Your task to perform on an android device: Search for the new nike shoes on Target Image 0: 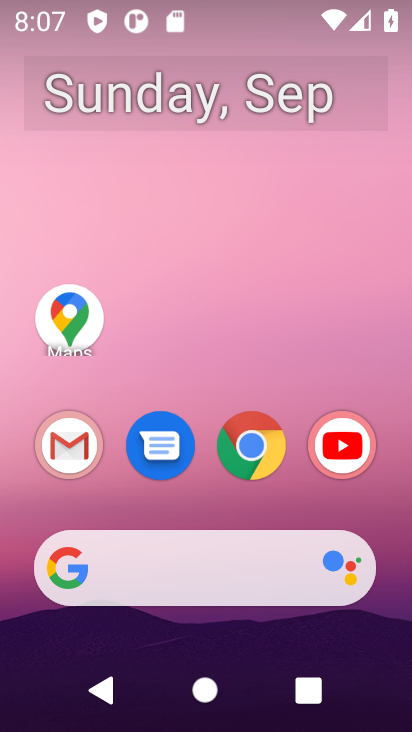
Step 0: drag from (141, 538) to (179, 20)
Your task to perform on an android device: Search for the new nike shoes on Target Image 1: 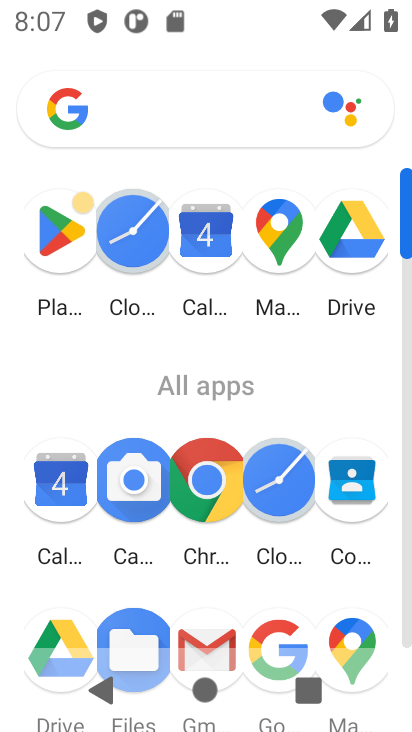
Step 1: click (191, 476)
Your task to perform on an android device: Search for the new nike shoes on Target Image 2: 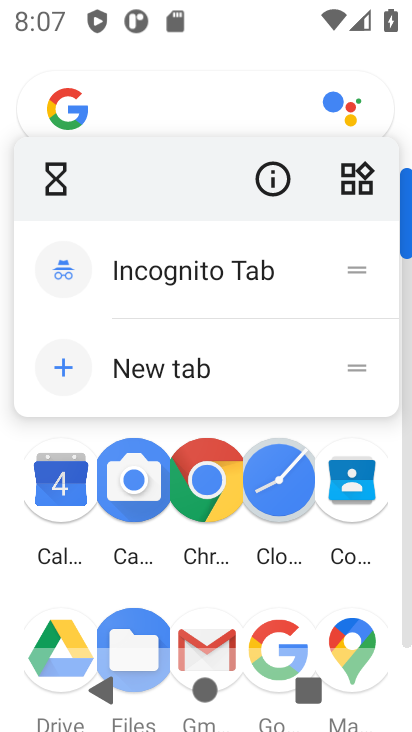
Step 2: click (215, 481)
Your task to perform on an android device: Search for the new nike shoes on Target Image 3: 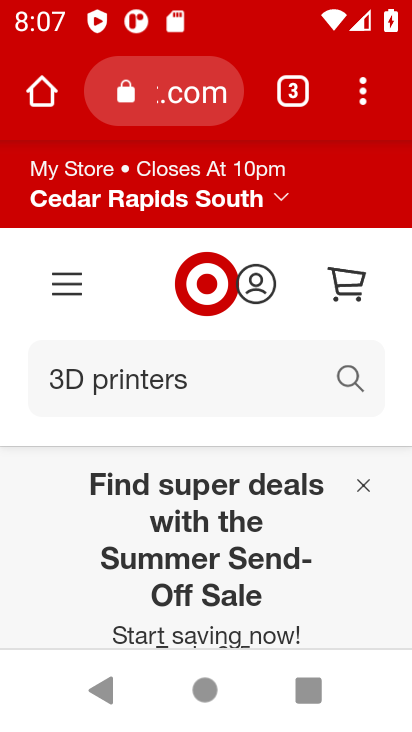
Step 3: click (190, 107)
Your task to perform on an android device: Search for the new nike shoes on Target Image 4: 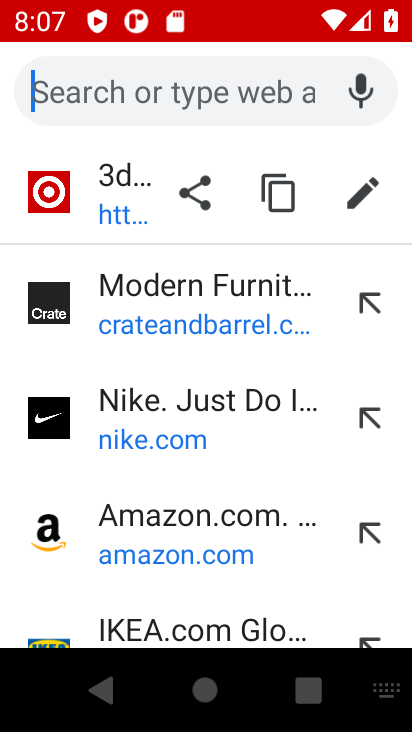
Step 4: press enter
Your task to perform on an android device: Search for the new nike shoes on Target Image 5: 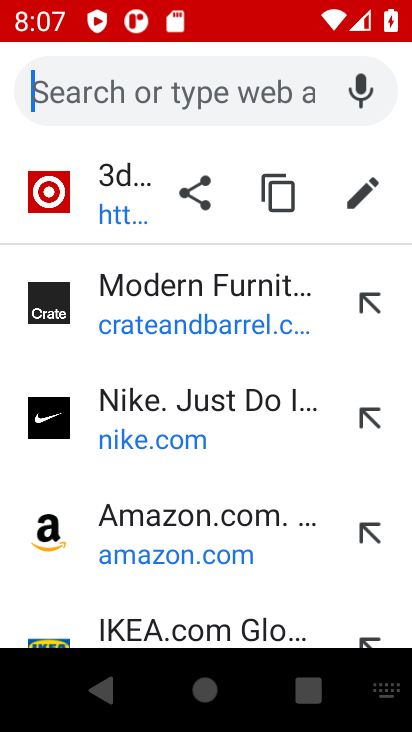
Step 5: type "Target"
Your task to perform on an android device: Search for the new nike shoes on Target Image 6: 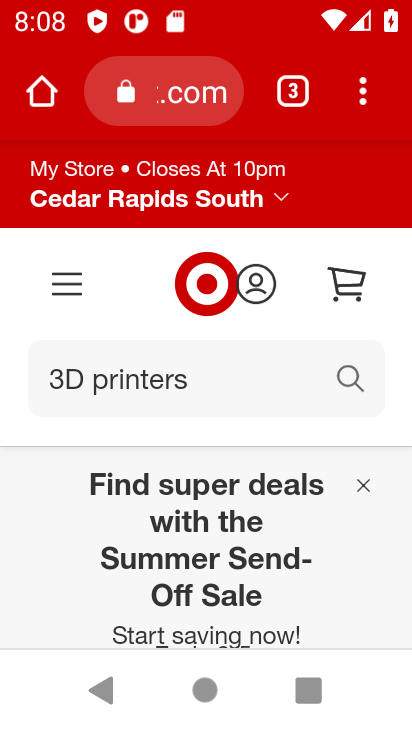
Step 6: click (298, 394)
Your task to perform on an android device: Search for the new nike shoes on Target Image 7: 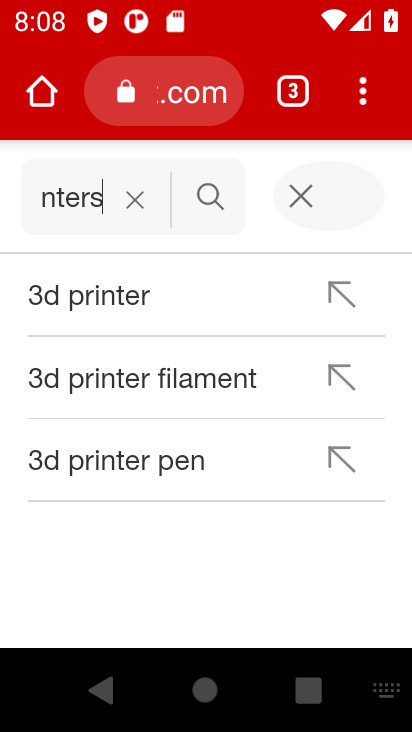
Step 7: click (126, 194)
Your task to perform on an android device: Search for the new nike shoes on Target Image 8: 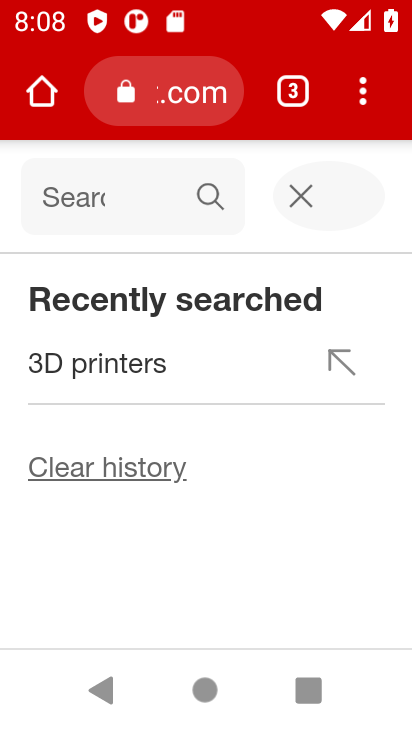
Step 8: type "new nike shoes"
Your task to perform on an android device: Search for the new nike shoes on Target Image 9: 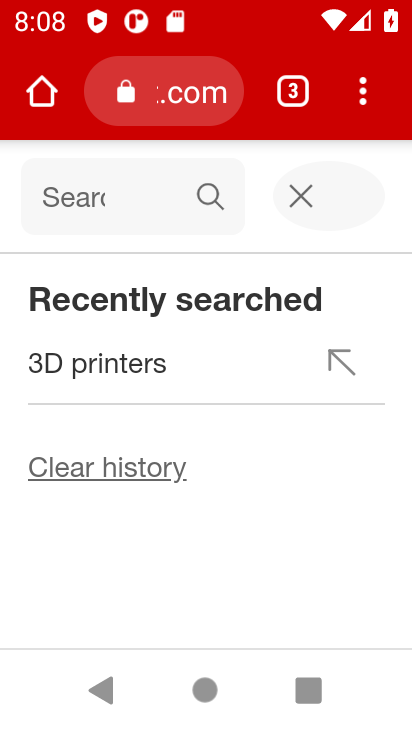
Step 9: click (66, 202)
Your task to perform on an android device: Search for the new nike shoes on Target Image 10: 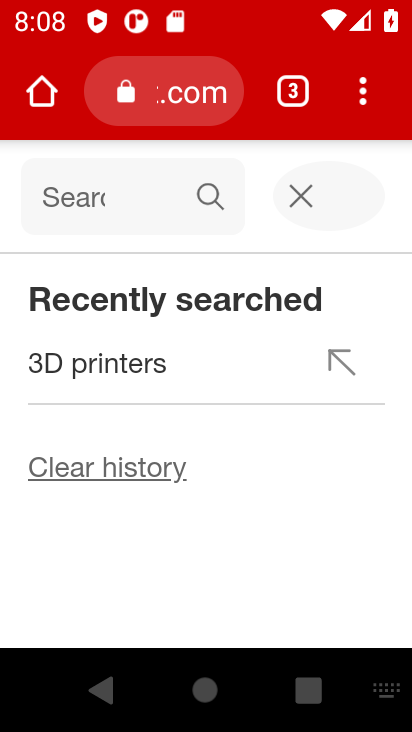
Step 10: type "new nike shoes"
Your task to perform on an android device: Search for the new nike shoes on Target Image 11: 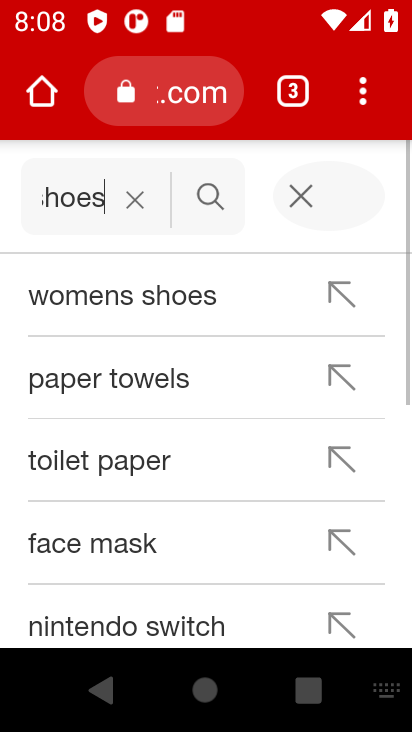
Step 11: press enter
Your task to perform on an android device: Search for the new nike shoes on Target Image 12: 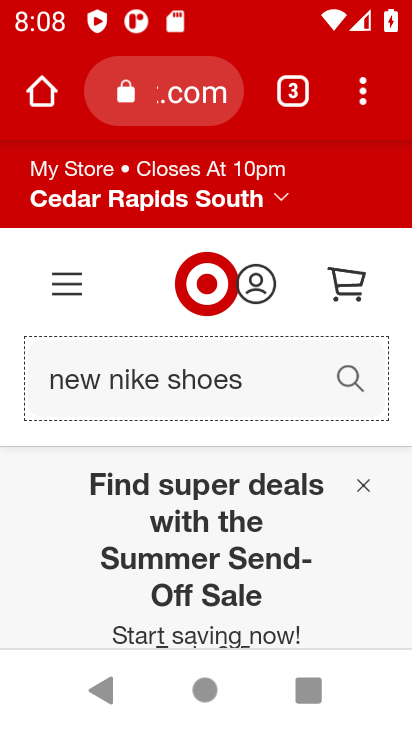
Step 12: press enter
Your task to perform on an android device: Search for the new nike shoes on Target Image 13: 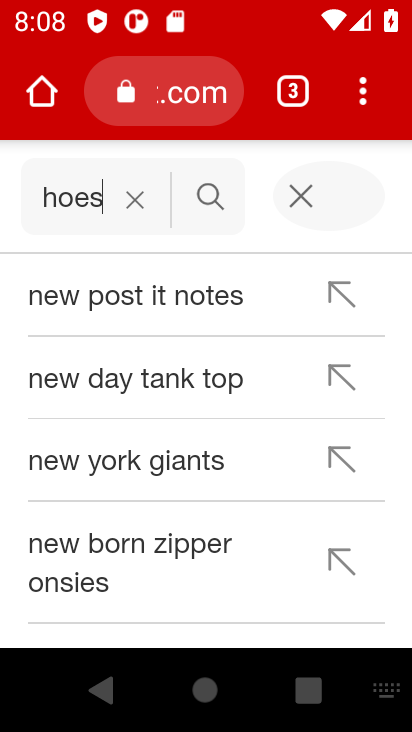
Step 13: click (141, 200)
Your task to perform on an android device: Search for the new nike shoes on Target Image 14: 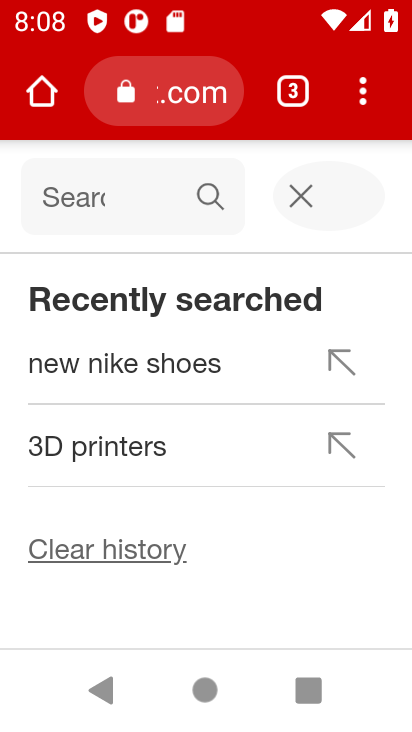
Step 14: click (125, 363)
Your task to perform on an android device: Search for the new nike shoes on Target Image 15: 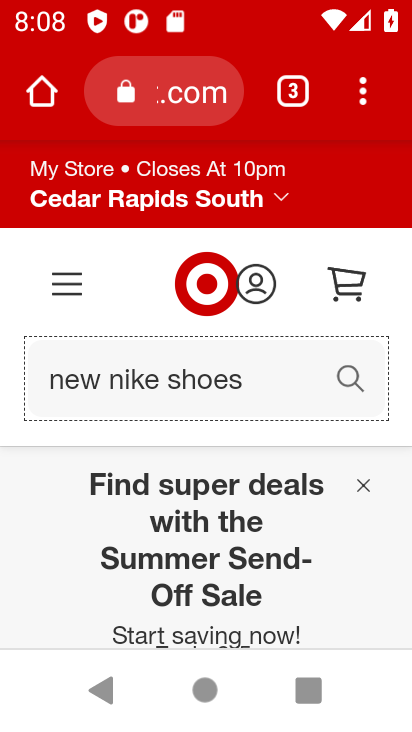
Step 15: task complete